Your task to perform on an android device: Do I have any events tomorrow? Image 0: 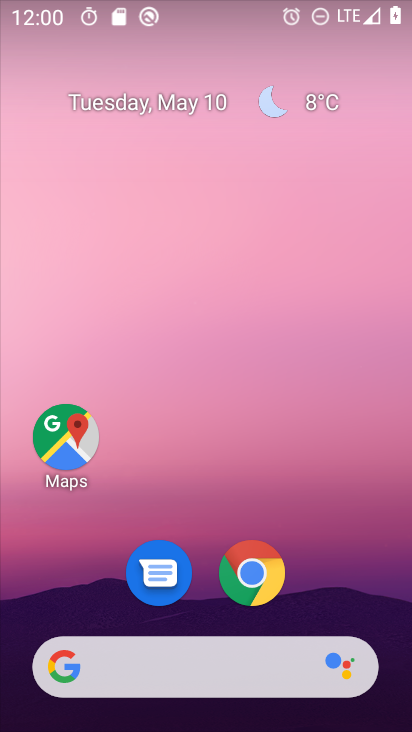
Step 0: drag from (356, 572) to (305, 121)
Your task to perform on an android device: Do I have any events tomorrow? Image 1: 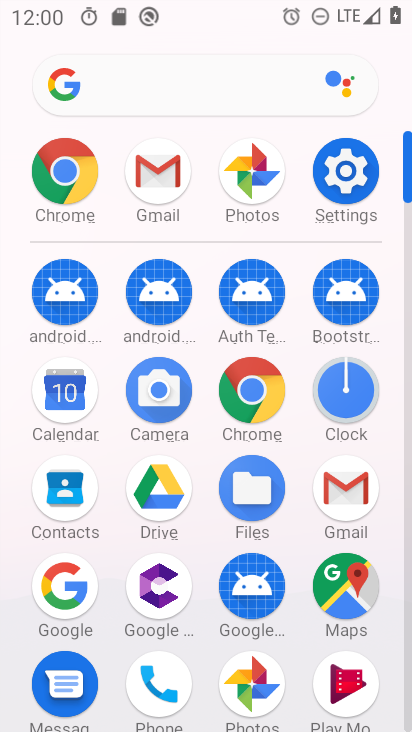
Step 1: click (72, 402)
Your task to perform on an android device: Do I have any events tomorrow? Image 2: 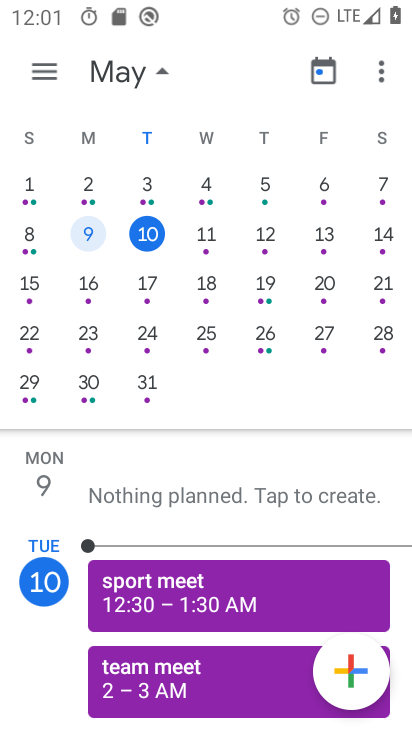
Step 2: task complete